Your task to perform on an android device: change timer sound Image 0: 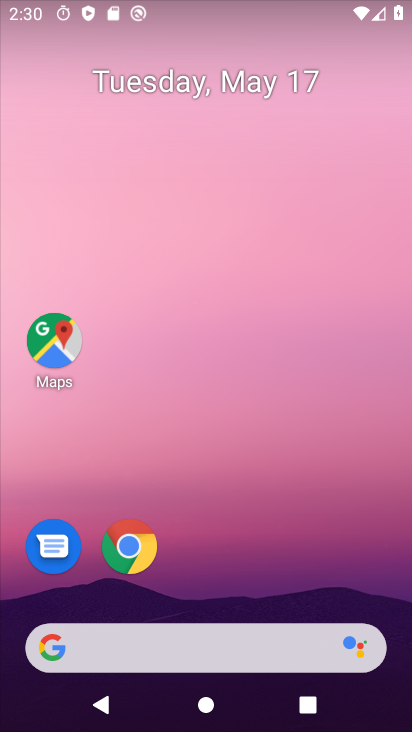
Step 0: drag from (251, 578) to (240, 150)
Your task to perform on an android device: change timer sound Image 1: 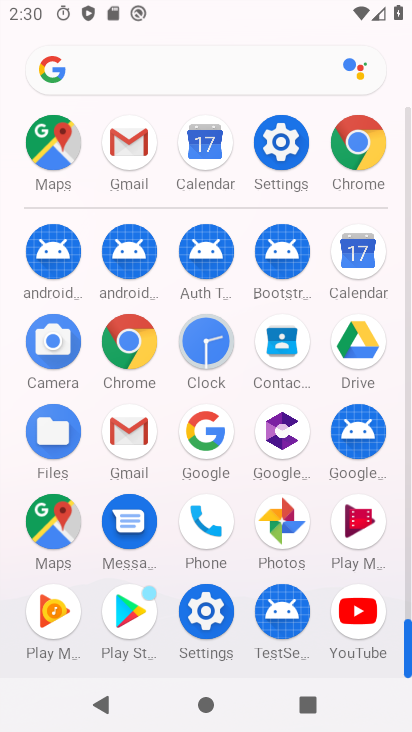
Step 1: click (227, 349)
Your task to perform on an android device: change timer sound Image 2: 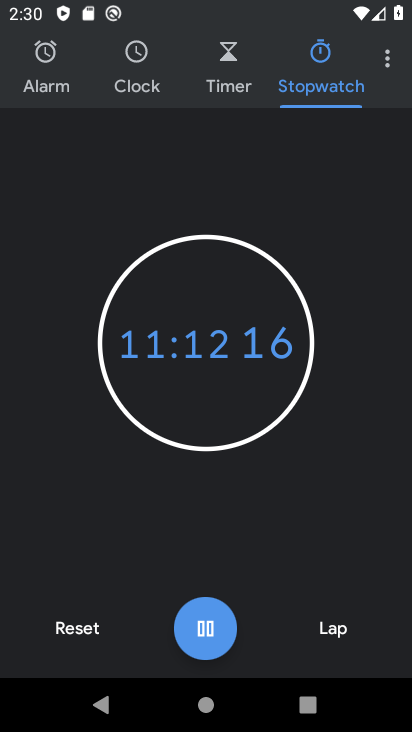
Step 2: click (399, 65)
Your task to perform on an android device: change timer sound Image 3: 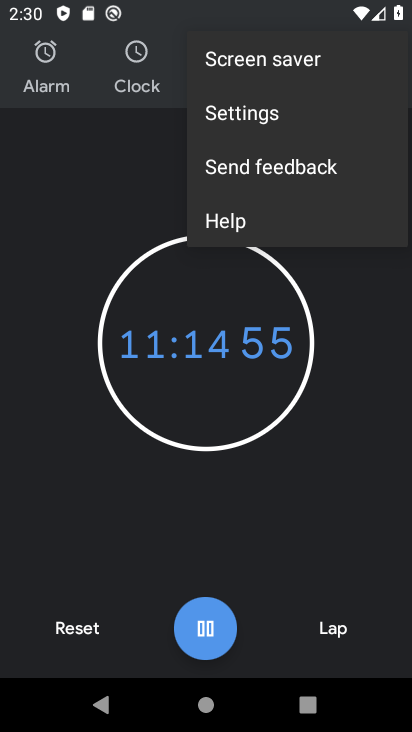
Step 3: click (285, 115)
Your task to perform on an android device: change timer sound Image 4: 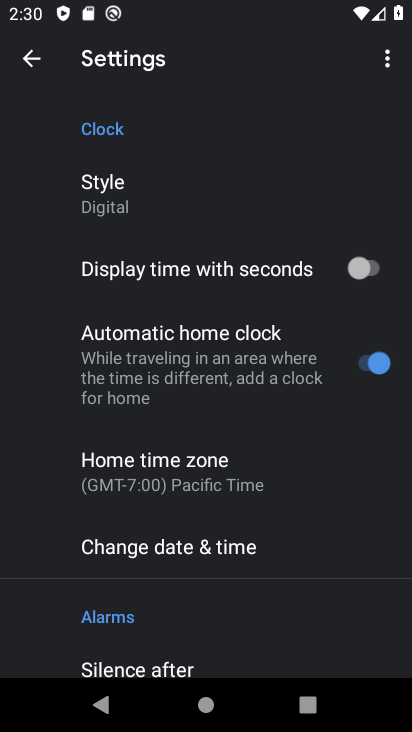
Step 4: drag from (211, 481) to (220, 246)
Your task to perform on an android device: change timer sound Image 5: 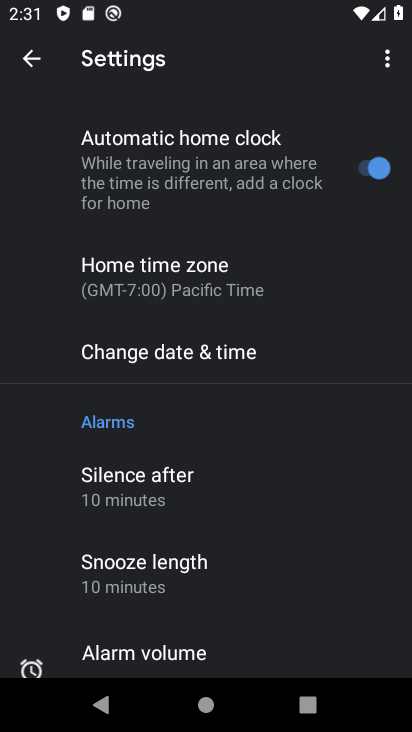
Step 5: drag from (185, 458) to (176, 259)
Your task to perform on an android device: change timer sound Image 6: 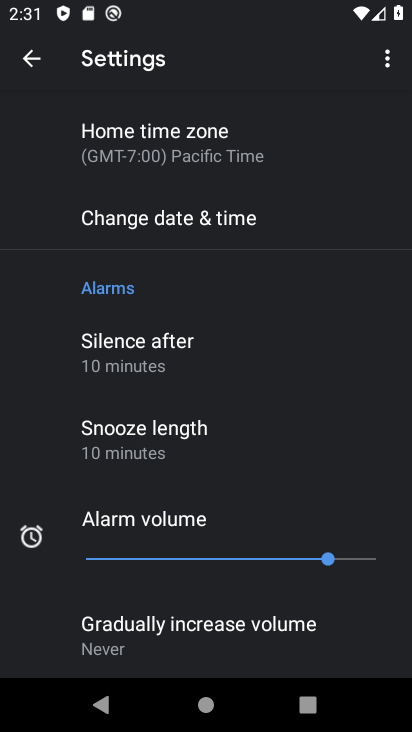
Step 6: drag from (217, 528) to (139, 223)
Your task to perform on an android device: change timer sound Image 7: 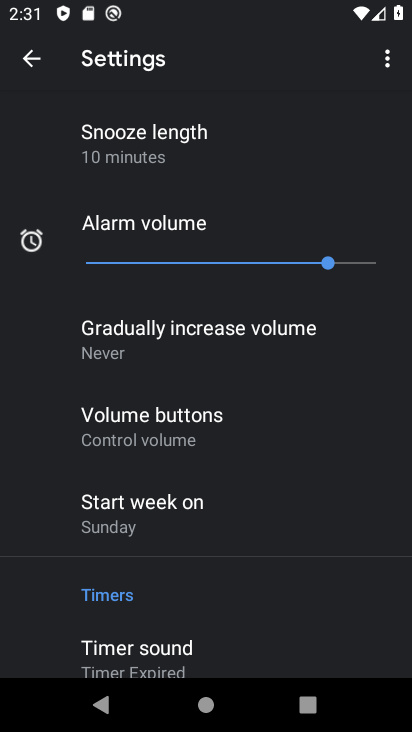
Step 7: click (181, 660)
Your task to perform on an android device: change timer sound Image 8: 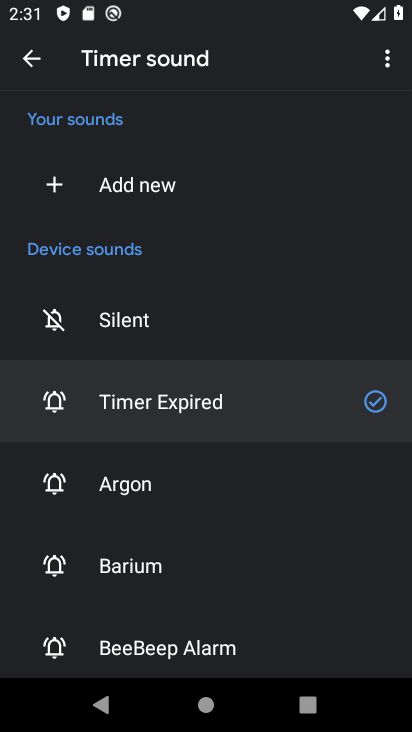
Step 8: click (134, 495)
Your task to perform on an android device: change timer sound Image 9: 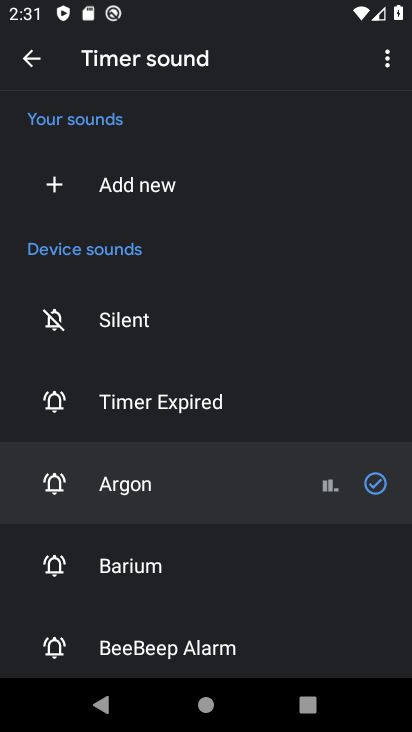
Step 9: task complete